Your task to perform on an android device: When is my next meeting? Image 0: 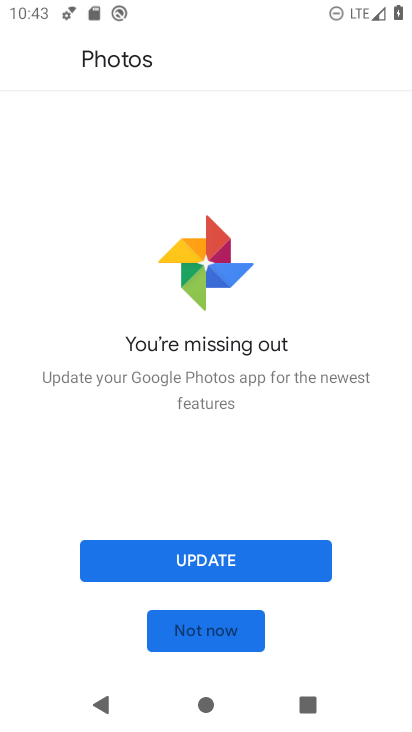
Step 0: press home button
Your task to perform on an android device: When is my next meeting? Image 1: 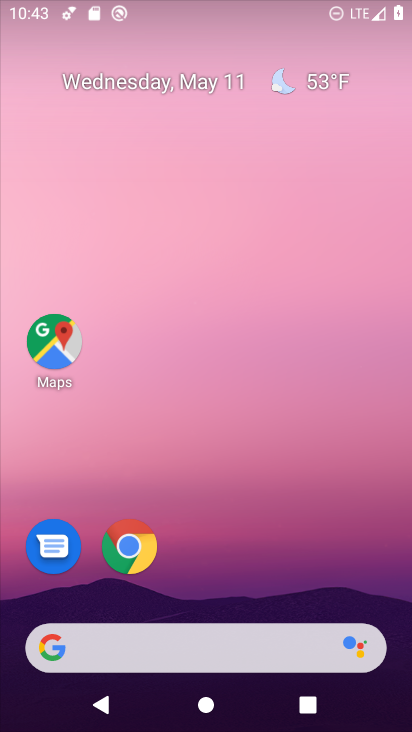
Step 1: drag from (400, 637) to (282, 100)
Your task to perform on an android device: When is my next meeting? Image 2: 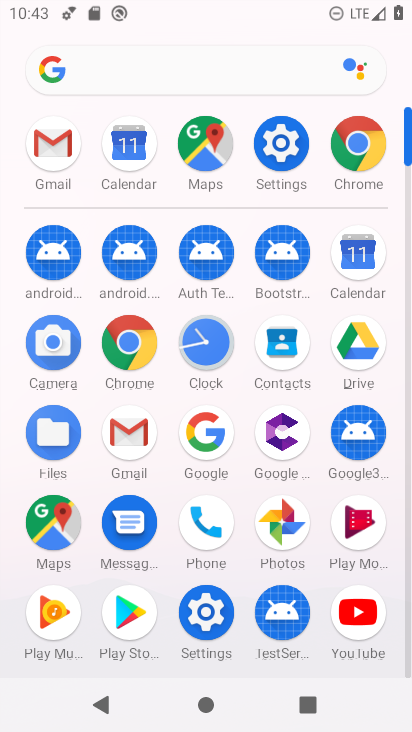
Step 2: click (358, 268)
Your task to perform on an android device: When is my next meeting? Image 3: 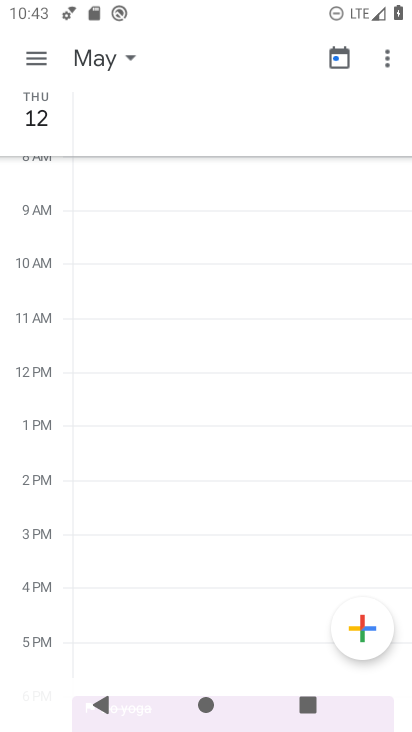
Step 3: task complete